Your task to perform on an android device: Find coffee shops on Maps Image 0: 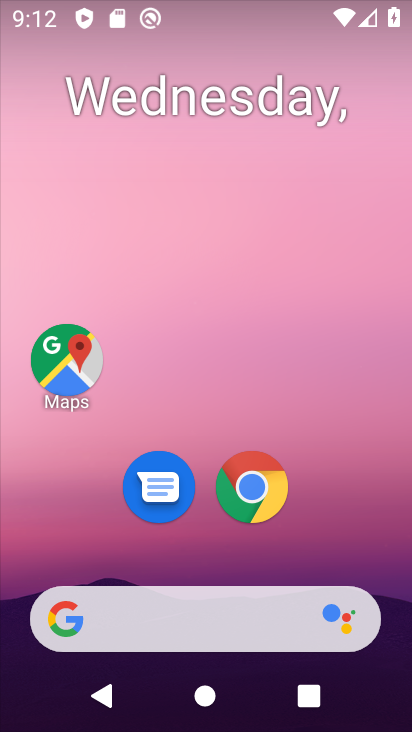
Step 0: drag from (355, 501) to (380, 142)
Your task to perform on an android device: Find coffee shops on Maps Image 1: 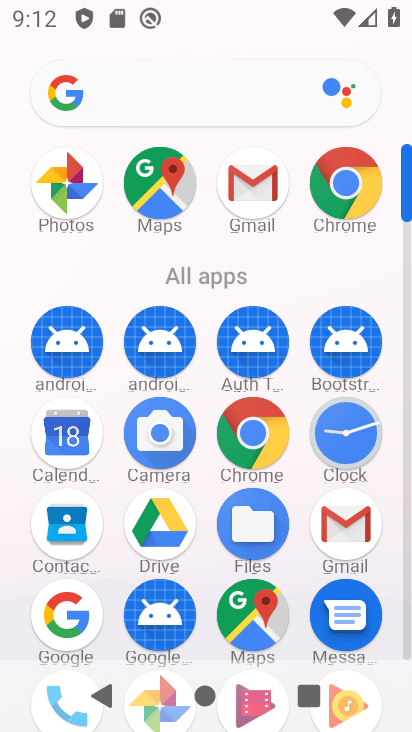
Step 1: click (256, 615)
Your task to perform on an android device: Find coffee shops on Maps Image 2: 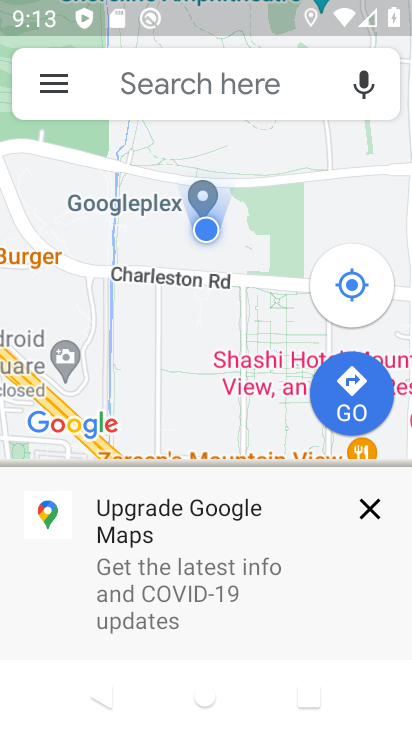
Step 2: click (138, 92)
Your task to perform on an android device: Find coffee shops on Maps Image 3: 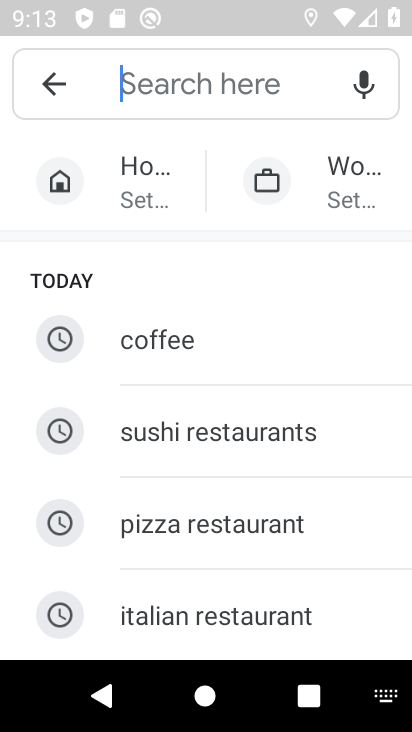
Step 3: type "coffee shops"
Your task to perform on an android device: Find coffee shops on Maps Image 4: 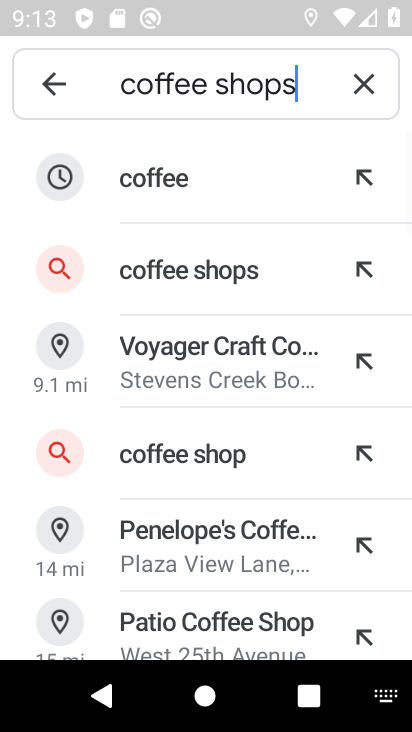
Step 4: click (249, 286)
Your task to perform on an android device: Find coffee shops on Maps Image 5: 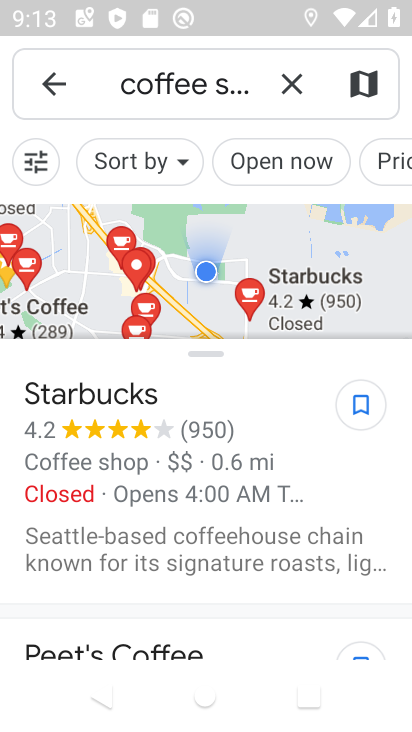
Step 5: task complete